Your task to perform on an android device: Open Chrome and go to the settings page Image 0: 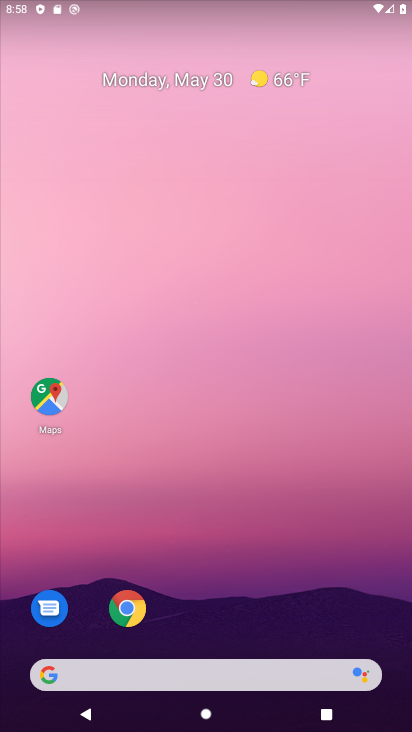
Step 0: click (129, 608)
Your task to perform on an android device: Open Chrome and go to the settings page Image 1: 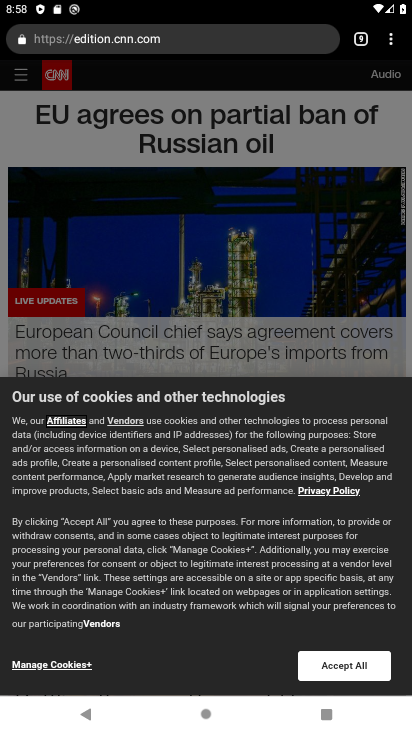
Step 1: click (395, 47)
Your task to perform on an android device: Open Chrome and go to the settings page Image 2: 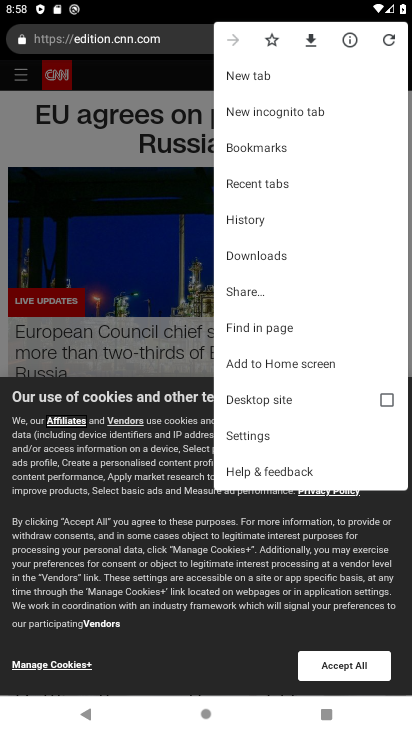
Step 2: click (254, 434)
Your task to perform on an android device: Open Chrome and go to the settings page Image 3: 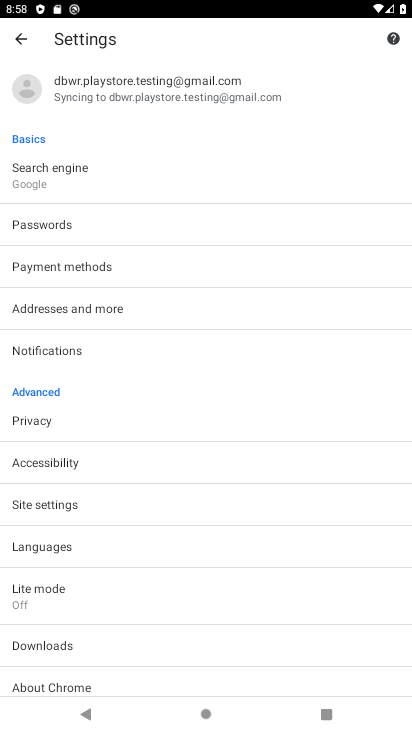
Step 3: task complete